Your task to perform on an android device: toggle pop-ups in chrome Image 0: 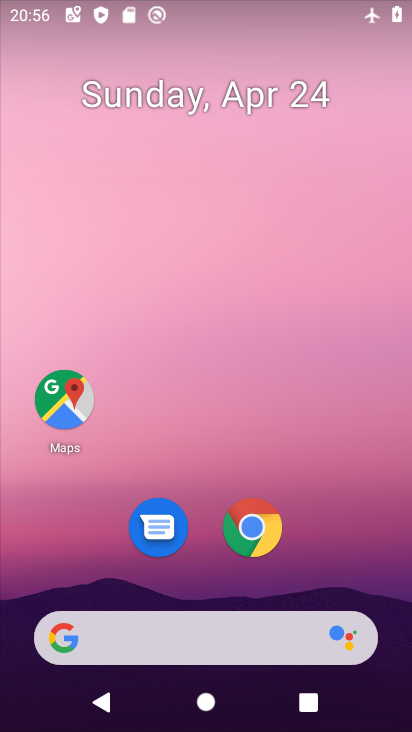
Step 0: click (250, 537)
Your task to perform on an android device: toggle pop-ups in chrome Image 1: 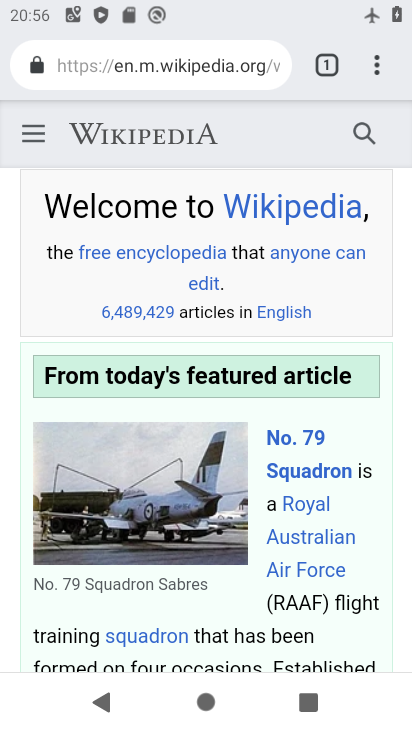
Step 1: click (372, 71)
Your task to perform on an android device: toggle pop-ups in chrome Image 2: 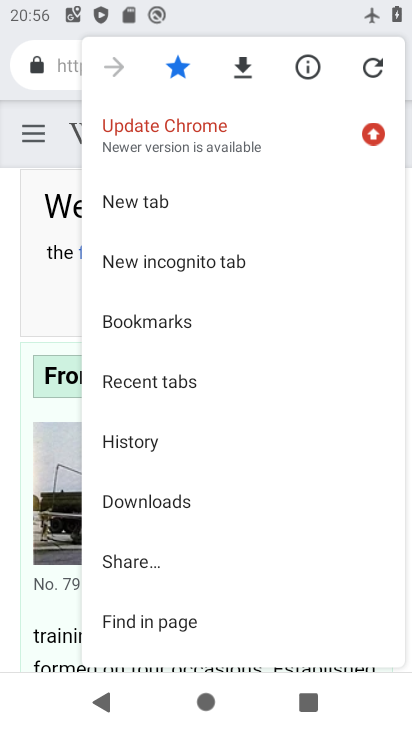
Step 2: drag from (345, 574) to (330, 239)
Your task to perform on an android device: toggle pop-ups in chrome Image 3: 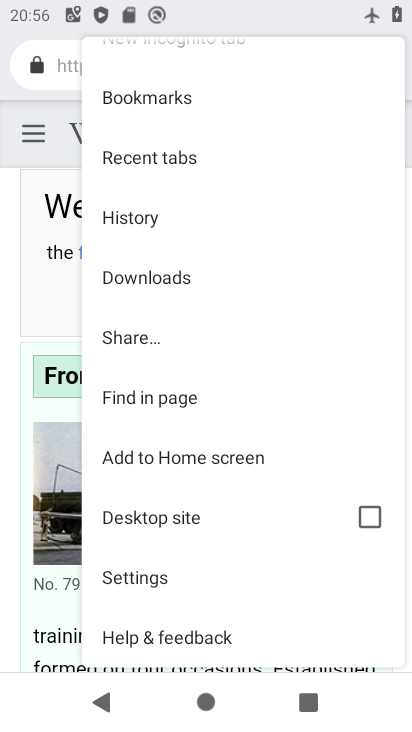
Step 3: click (136, 583)
Your task to perform on an android device: toggle pop-ups in chrome Image 4: 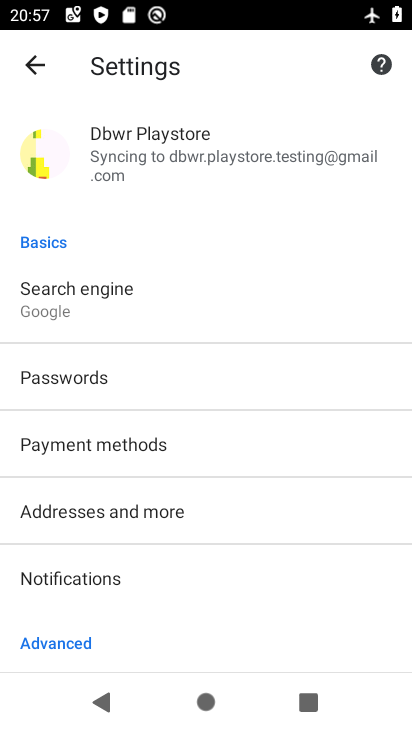
Step 4: drag from (311, 573) to (281, 208)
Your task to perform on an android device: toggle pop-ups in chrome Image 5: 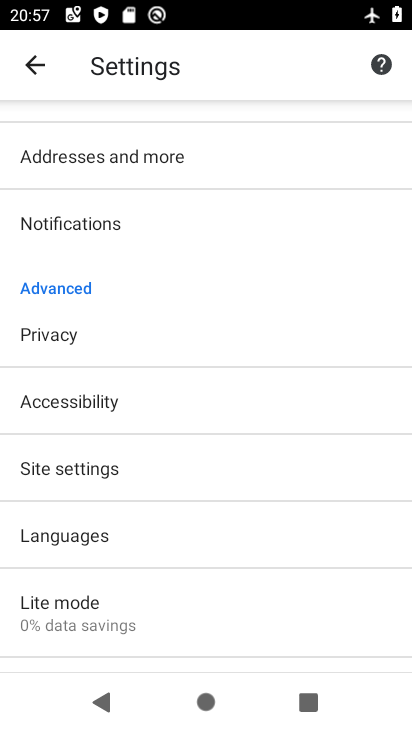
Step 5: click (59, 473)
Your task to perform on an android device: toggle pop-ups in chrome Image 6: 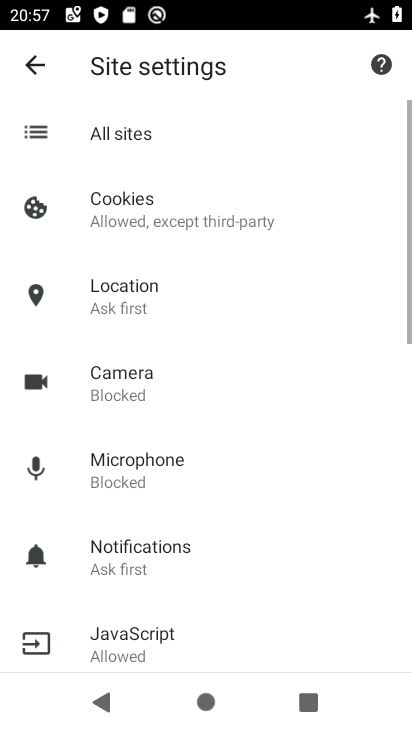
Step 6: drag from (267, 477) to (291, 135)
Your task to perform on an android device: toggle pop-ups in chrome Image 7: 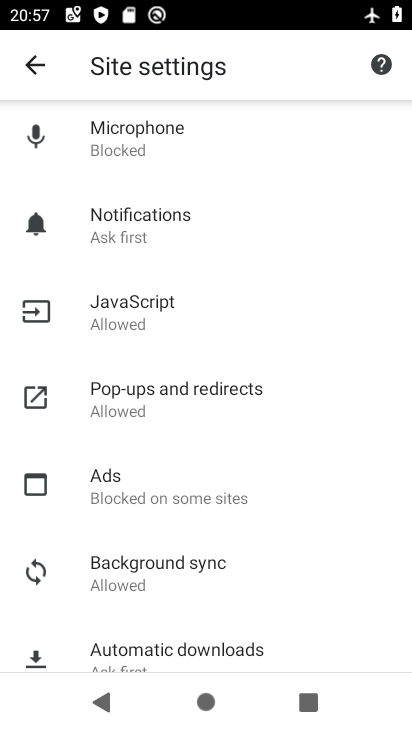
Step 7: click (135, 388)
Your task to perform on an android device: toggle pop-ups in chrome Image 8: 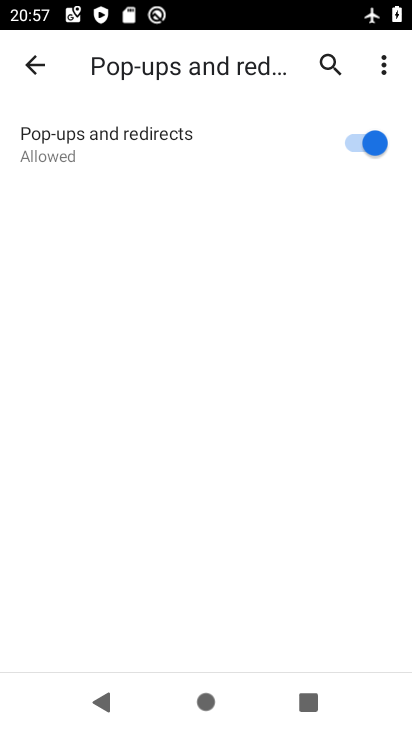
Step 8: click (375, 148)
Your task to perform on an android device: toggle pop-ups in chrome Image 9: 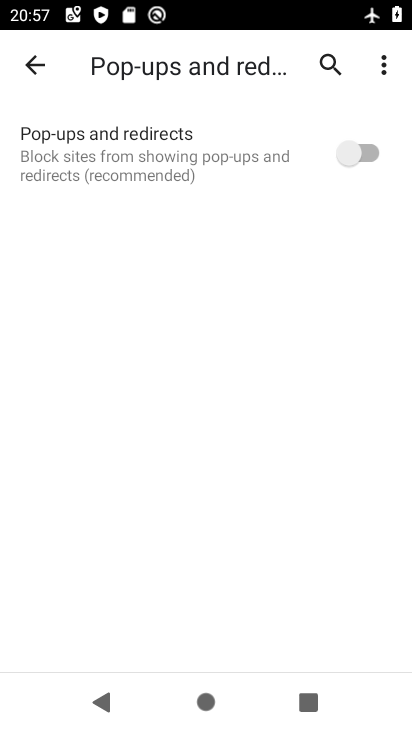
Step 9: task complete